Your task to perform on an android device: turn notification dots off Image 0: 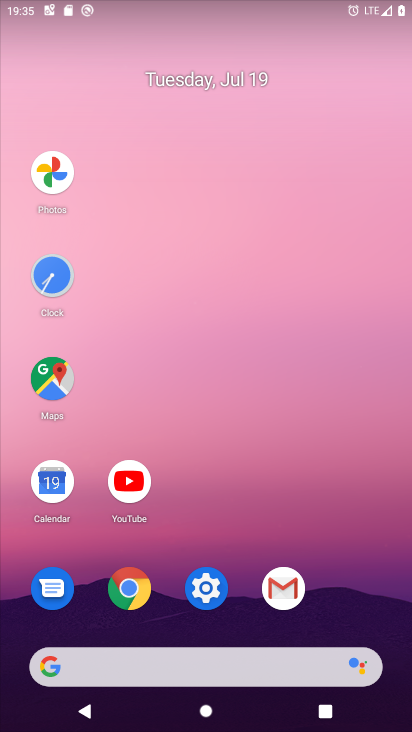
Step 0: click (207, 587)
Your task to perform on an android device: turn notification dots off Image 1: 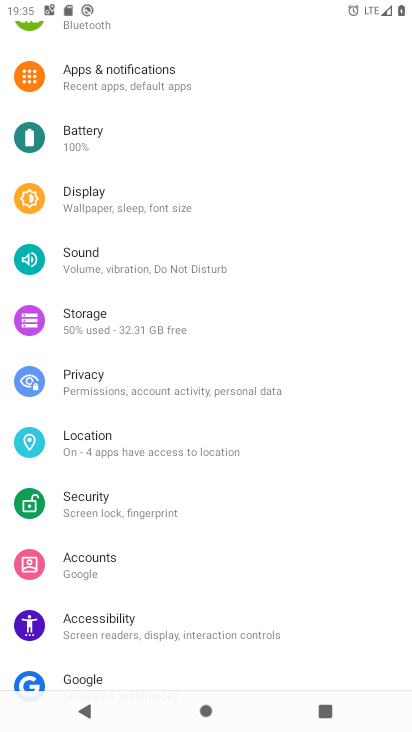
Step 1: click (144, 69)
Your task to perform on an android device: turn notification dots off Image 2: 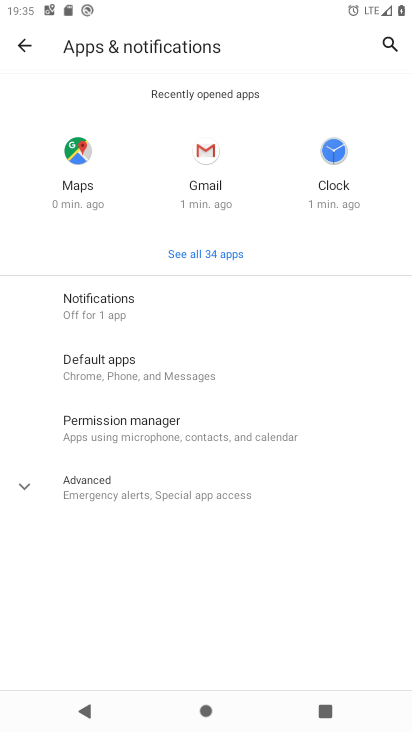
Step 2: click (108, 294)
Your task to perform on an android device: turn notification dots off Image 3: 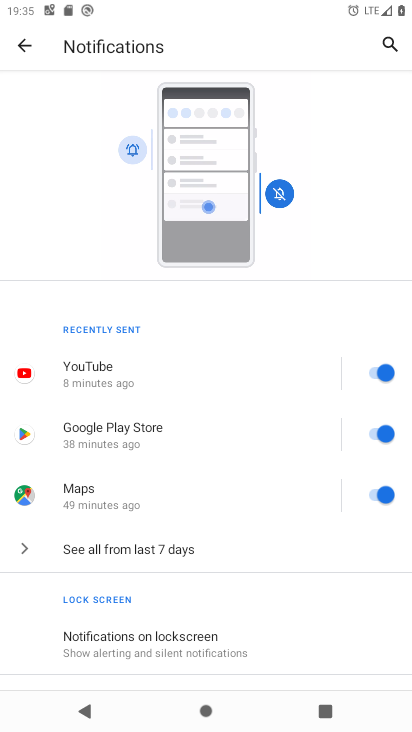
Step 3: drag from (246, 616) to (198, 328)
Your task to perform on an android device: turn notification dots off Image 4: 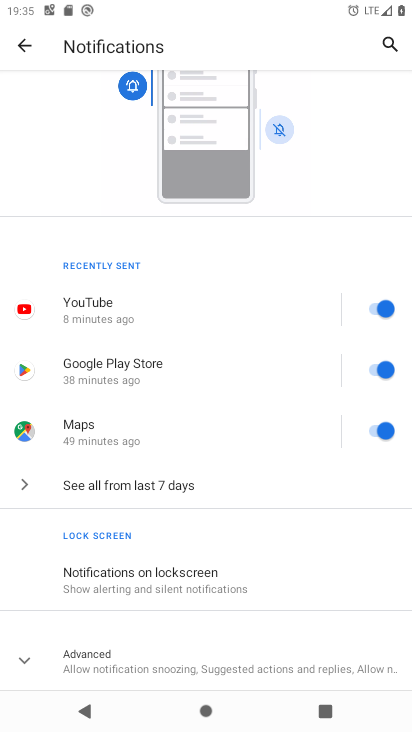
Step 4: click (19, 659)
Your task to perform on an android device: turn notification dots off Image 5: 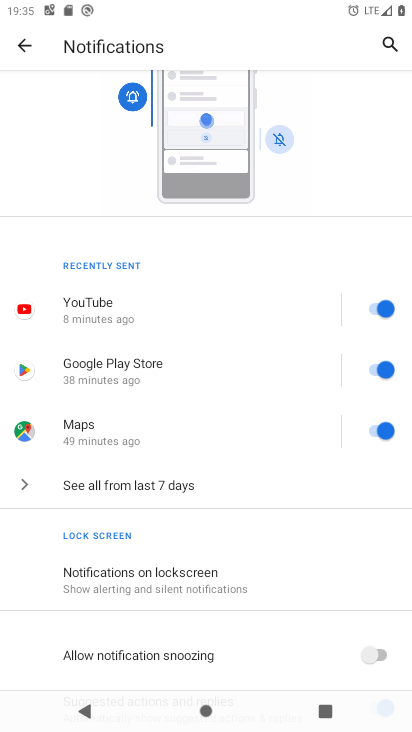
Step 5: drag from (255, 615) to (254, 214)
Your task to perform on an android device: turn notification dots off Image 6: 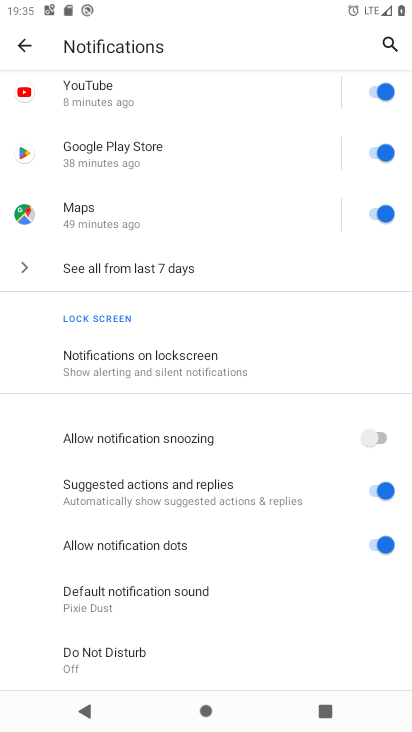
Step 6: click (378, 543)
Your task to perform on an android device: turn notification dots off Image 7: 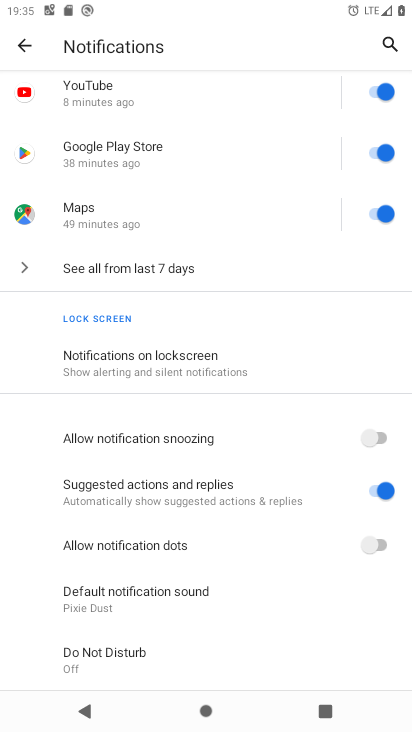
Step 7: task complete